Your task to perform on an android device: Search for "amazon basics triple a" on costco, select the first entry, and add it to the cart. Image 0: 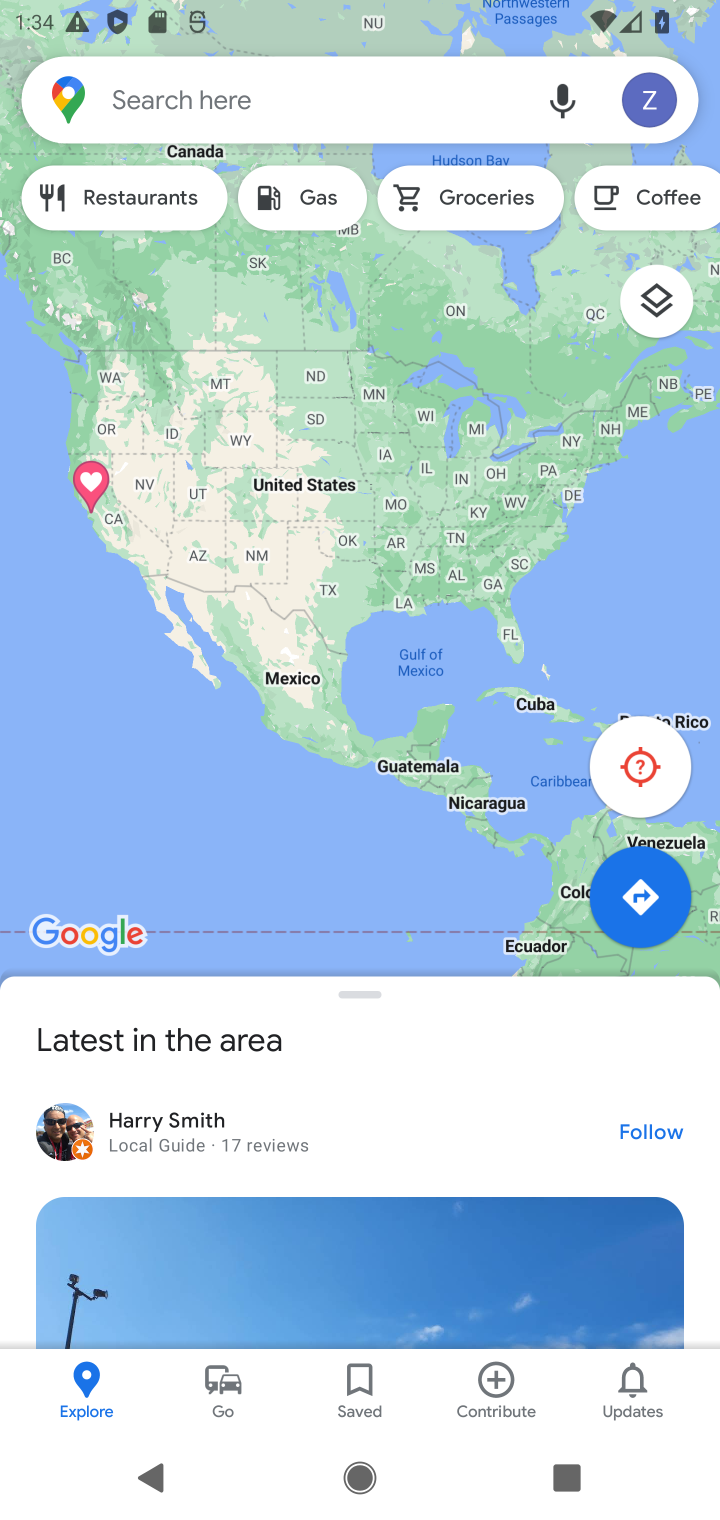
Step 0: press home button
Your task to perform on an android device: Search for "amazon basics triple a" on costco, select the first entry, and add it to the cart. Image 1: 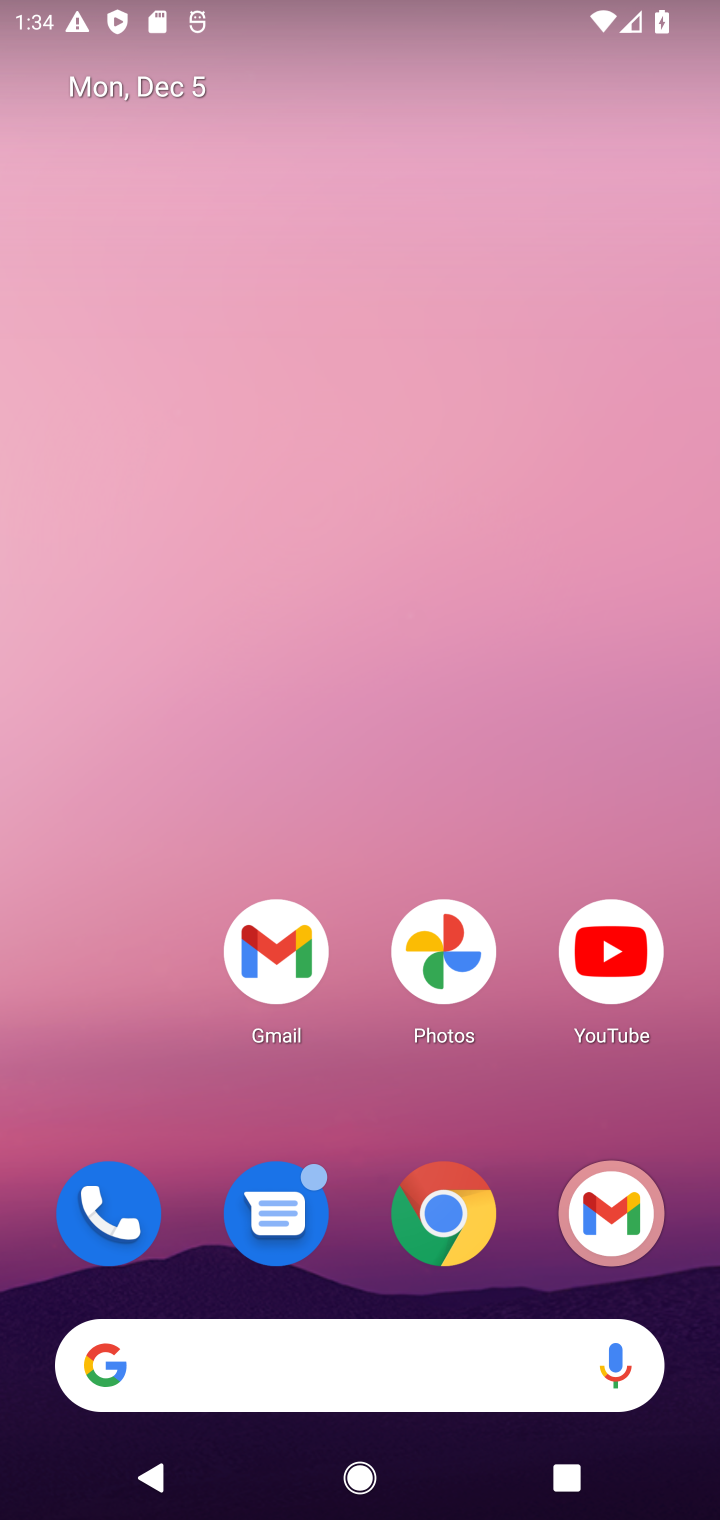
Step 1: click (449, 1228)
Your task to perform on an android device: Search for "amazon basics triple a" on costco, select the first entry, and add it to the cart. Image 2: 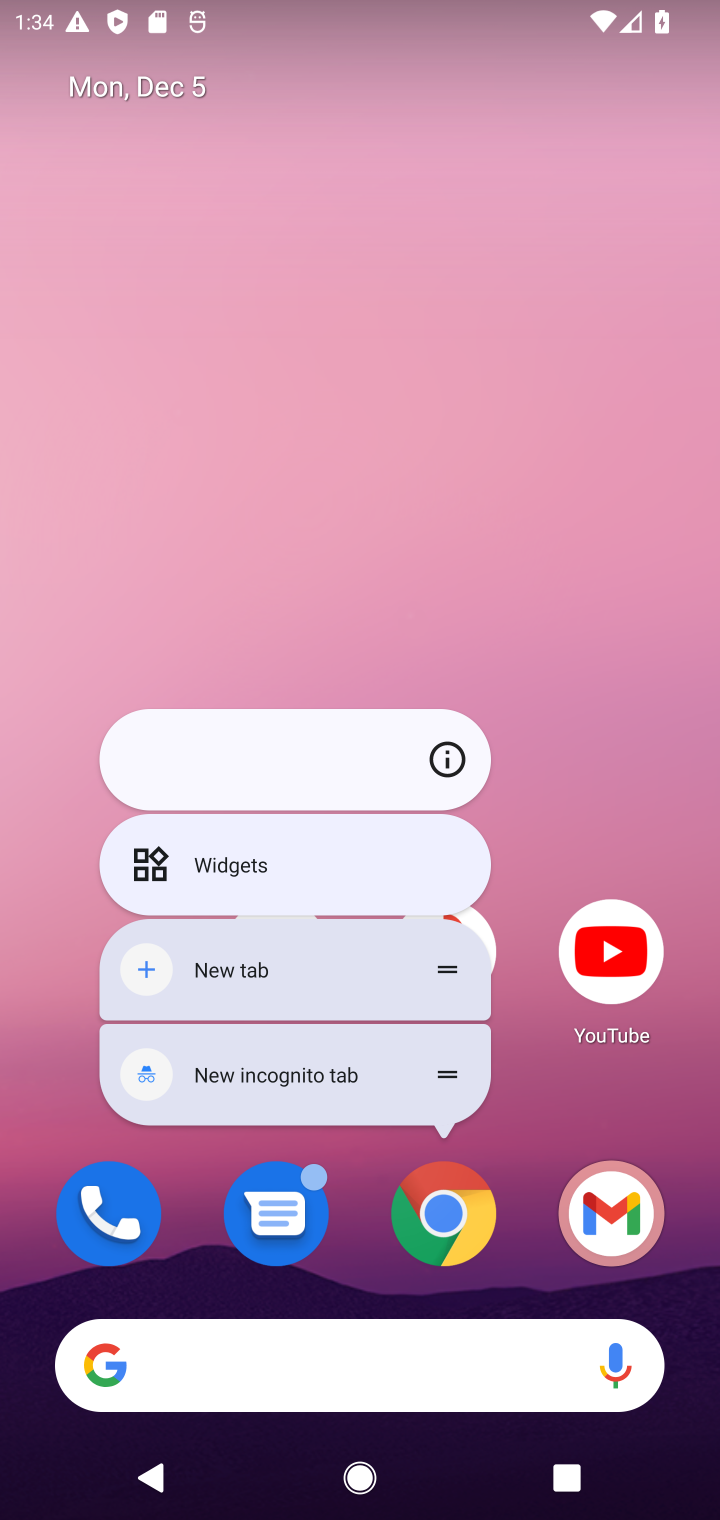
Step 2: click (449, 1228)
Your task to perform on an android device: Search for "amazon basics triple a" on costco, select the first entry, and add it to the cart. Image 3: 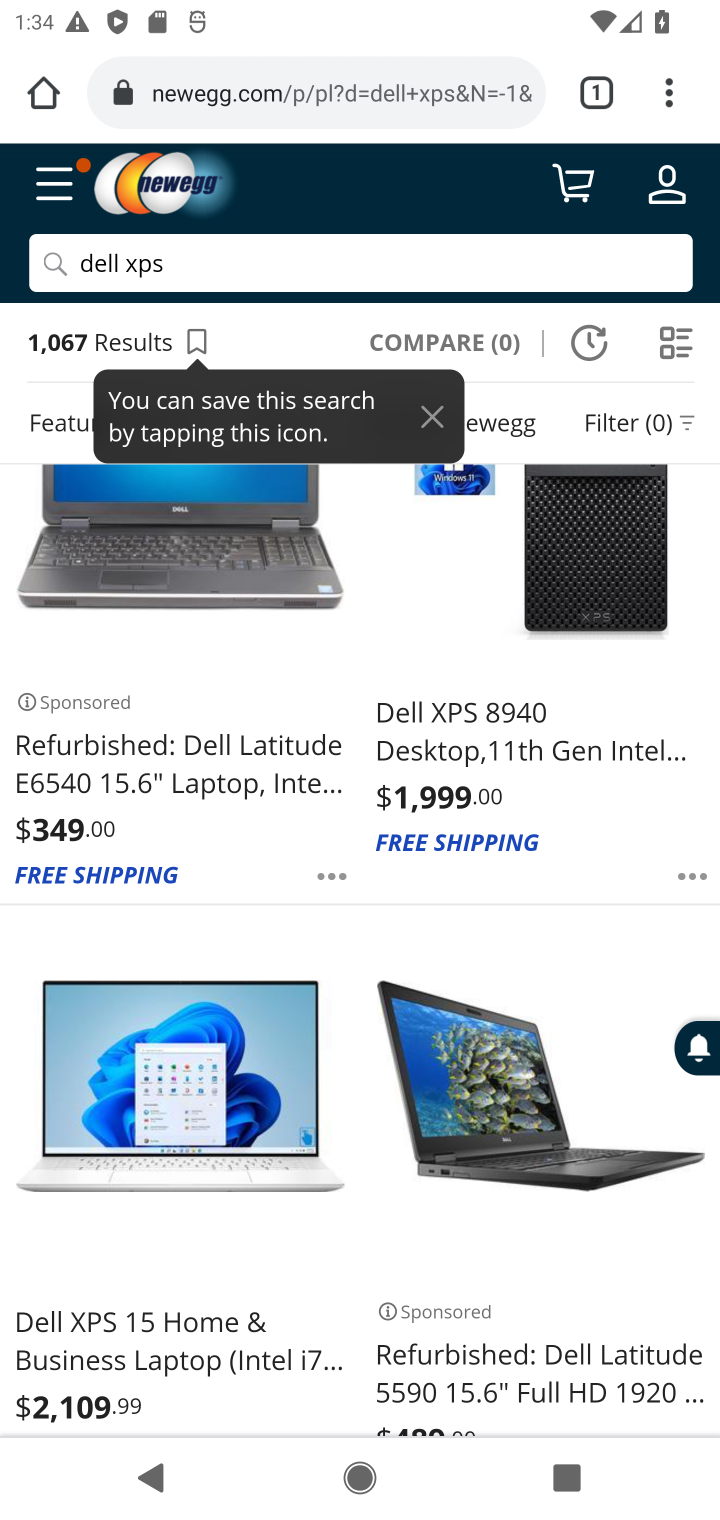
Step 3: click (249, 77)
Your task to perform on an android device: Search for "amazon basics triple a" on costco, select the first entry, and add it to the cart. Image 4: 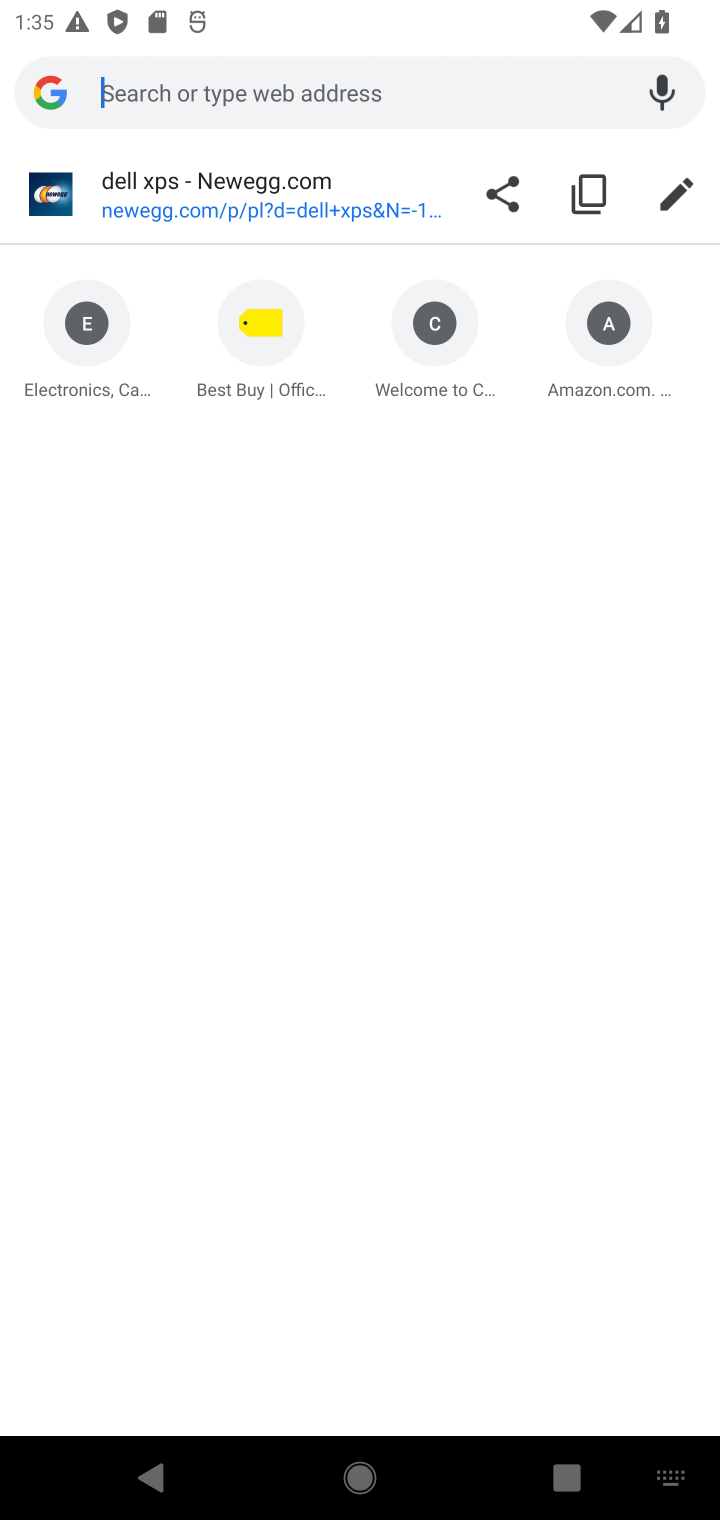
Step 4: type "costco.com"
Your task to perform on an android device: Search for "amazon basics triple a" on costco, select the first entry, and add it to the cart. Image 5: 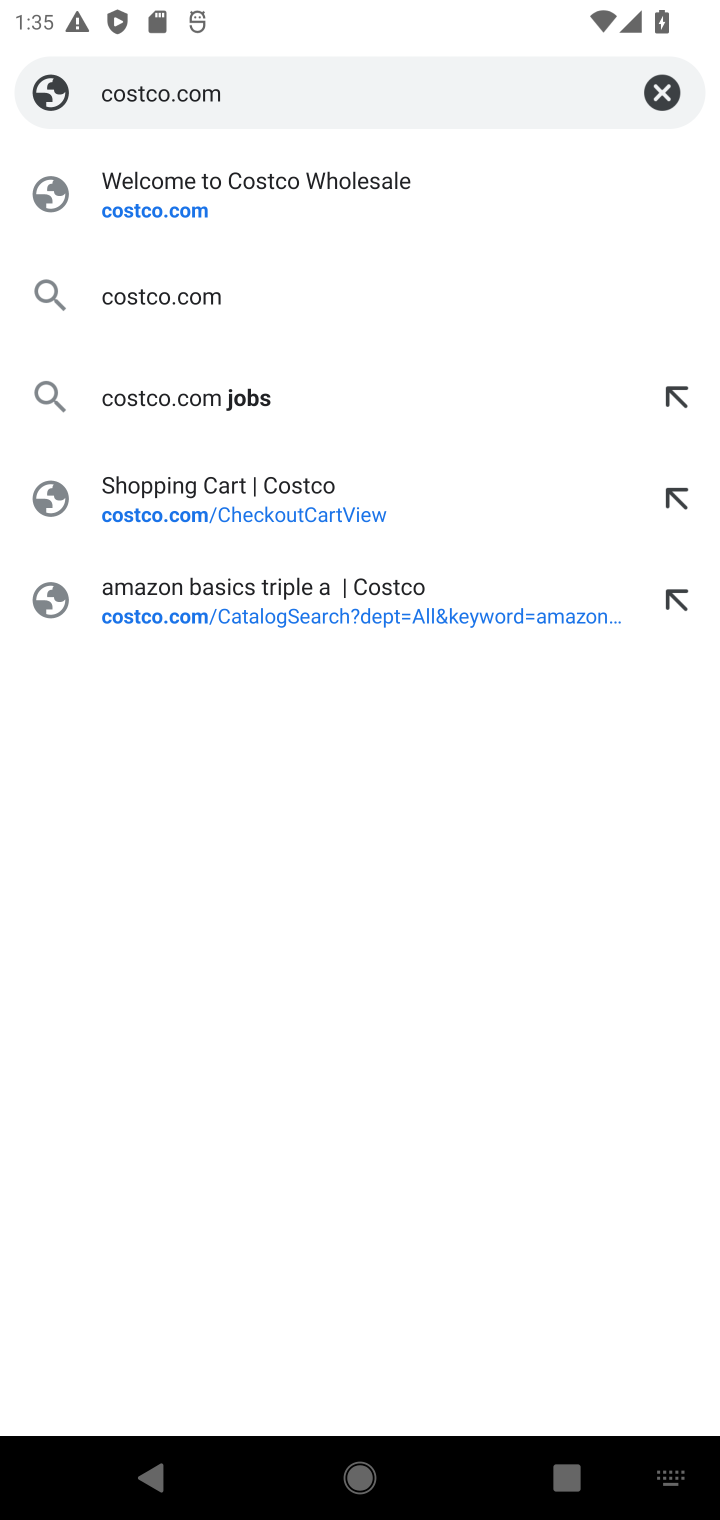
Step 5: click (169, 219)
Your task to perform on an android device: Search for "amazon basics triple a" on costco, select the first entry, and add it to the cart. Image 6: 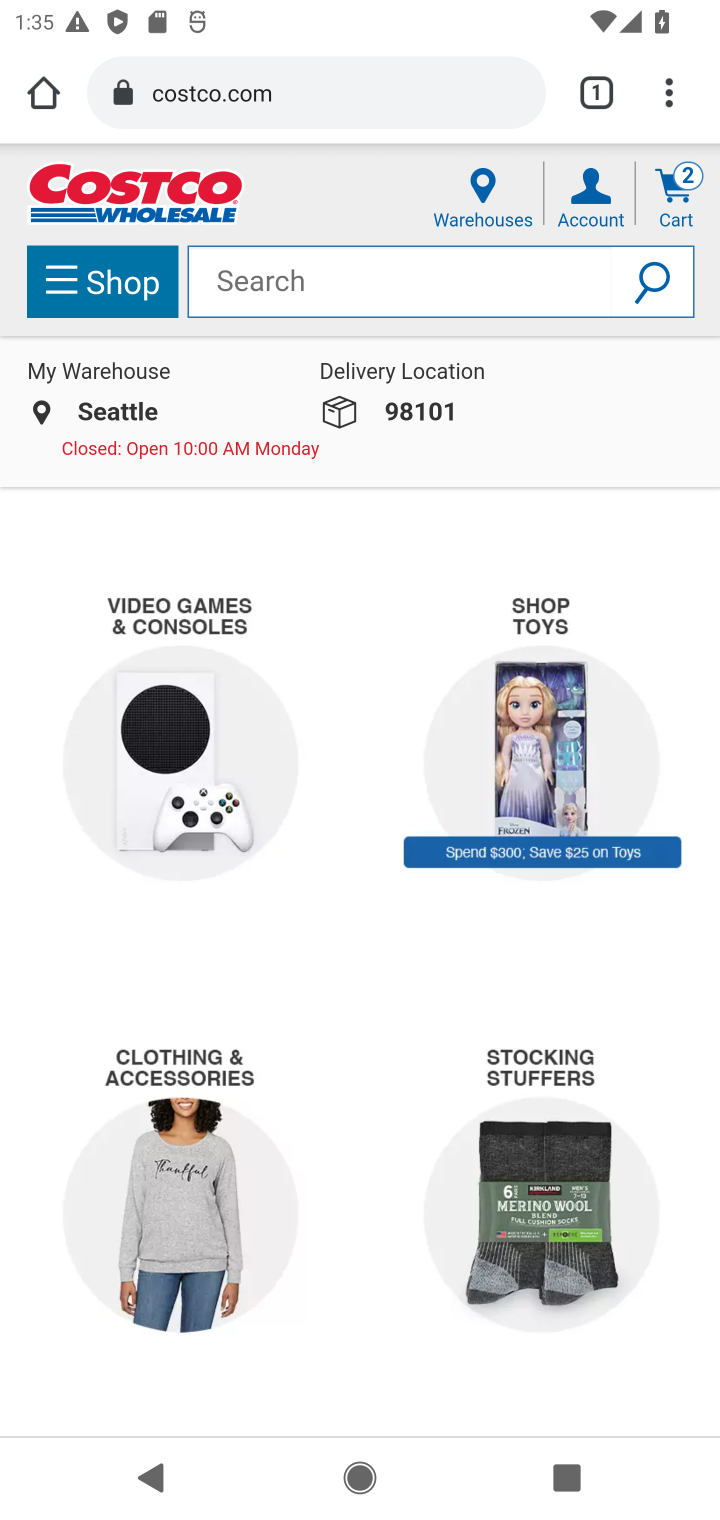
Step 6: click (411, 292)
Your task to perform on an android device: Search for "amazon basics triple a" on costco, select the first entry, and add it to the cart. Image 7: 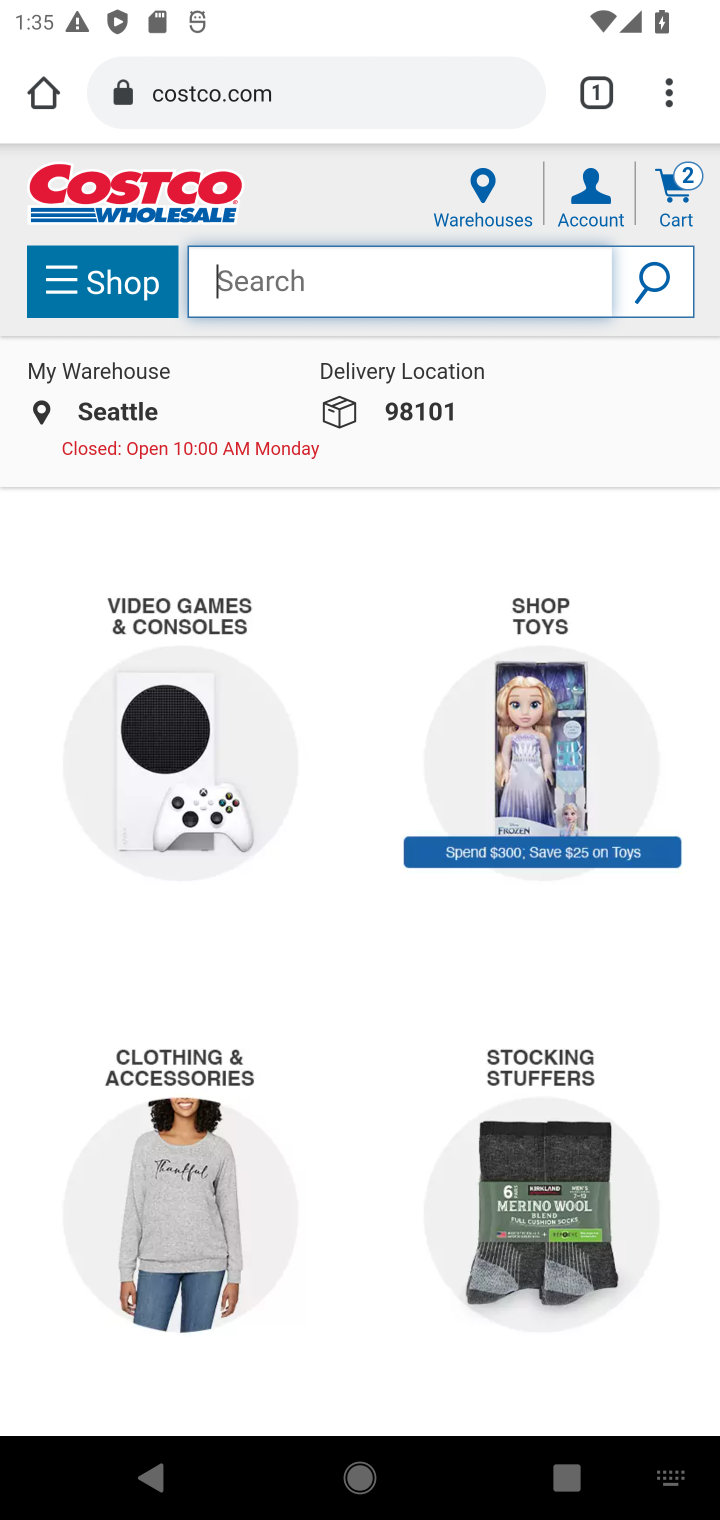
Step 7: type "amazon basics triple a"
Your task to perform on an android device: Search for "amazon basics triple a" on costco, select the first entry, and add it to the cart. Image 8: 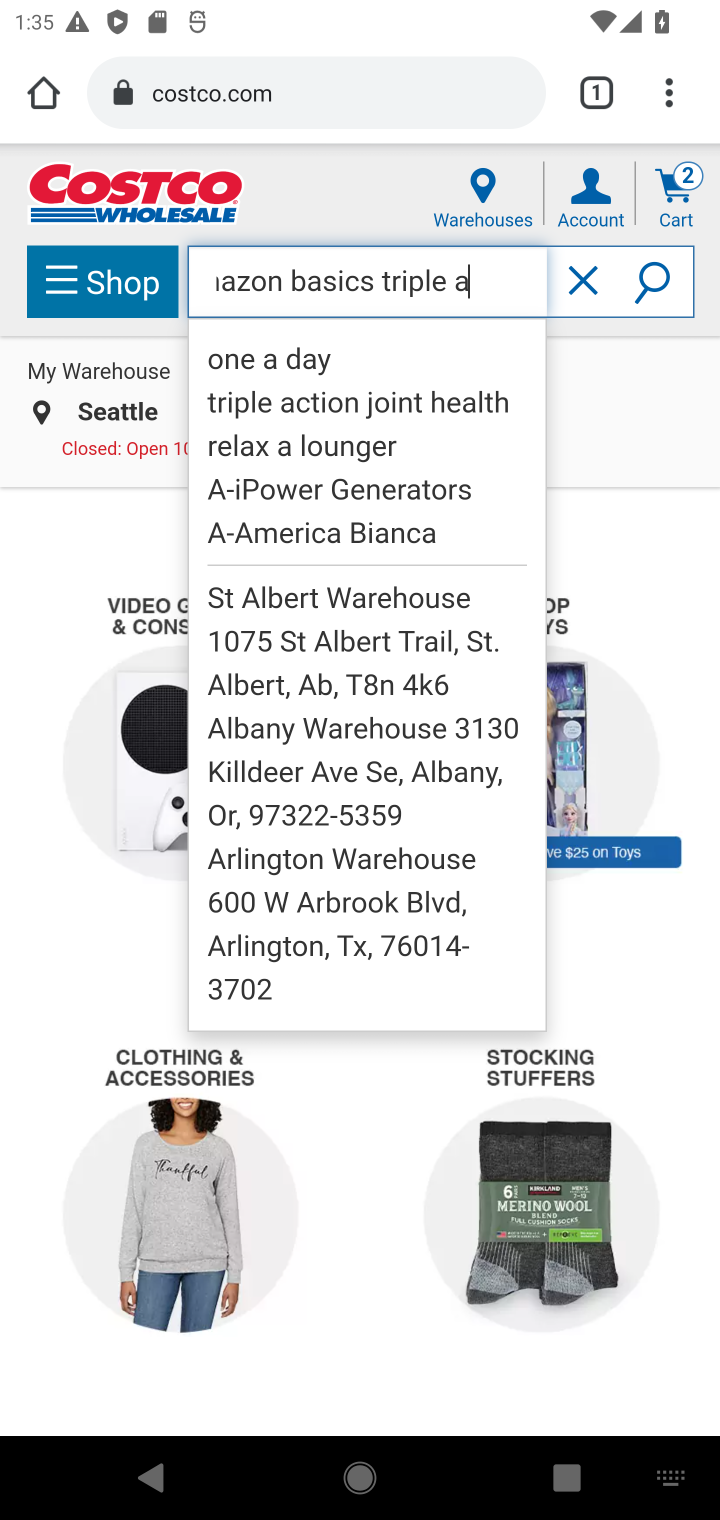
Step 8: click (657, 273)
Your task to perform on an android device: Search for "amazon basics triple a" on costco, select the first entry, and add it to the cart. Image 9: 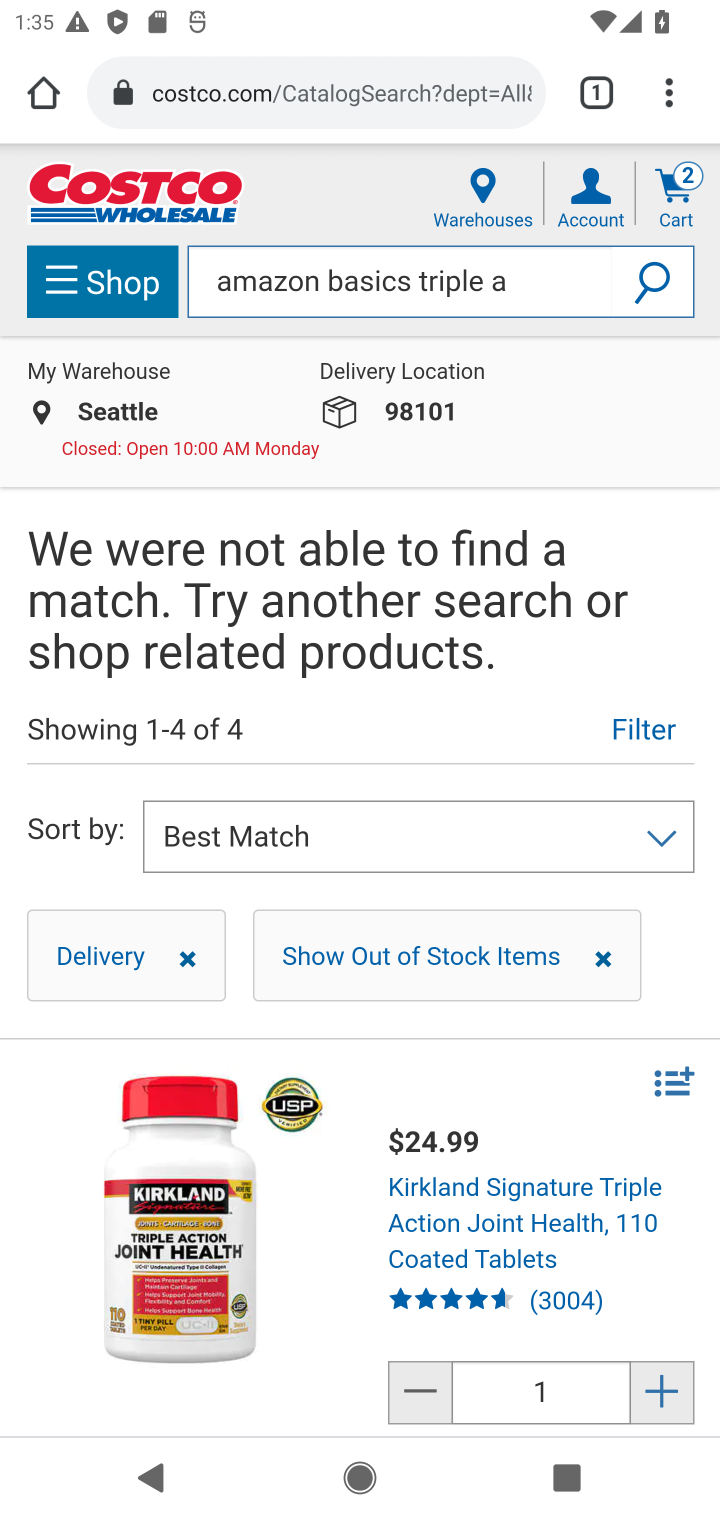
Step 9: task complete